Your task to perform on an android device: toggle data saver in the chrome app Image 0: 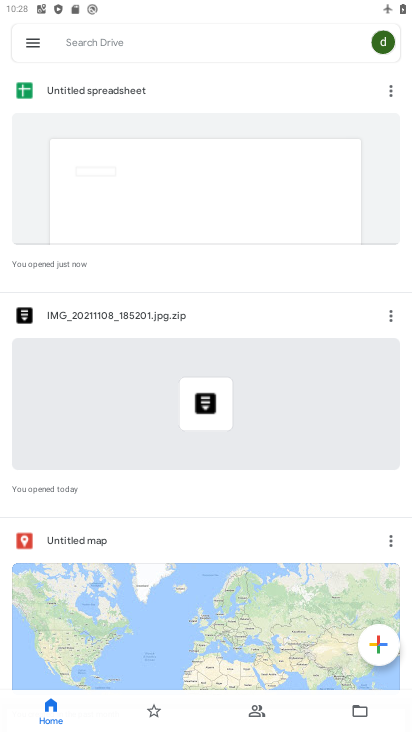
Step 0: press home button
Your task to perform on an android device: toggle data saver in the chrome app Image 1: 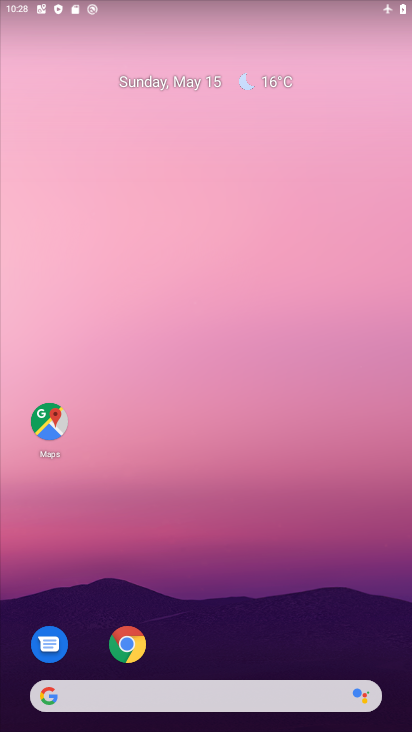
Step 1: click (125, 655)
Your task to perform on an android device: toggle data saver in the chrome app Image 2: 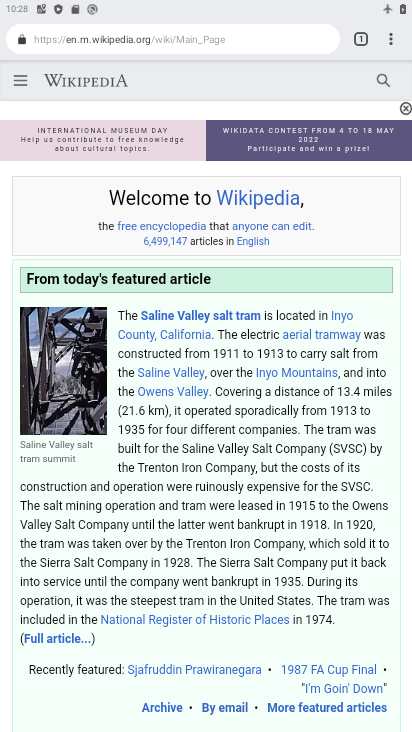
Step 2: click (397, 41)
Your task to perform on an android device: toggle data saver in the chrome app Image 3: 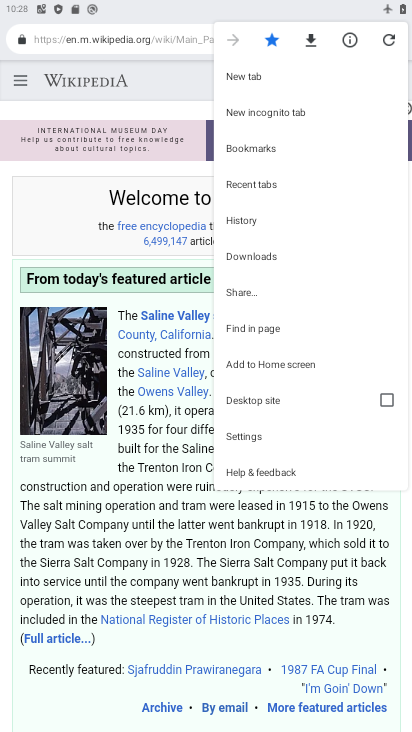
Step 3: click (293, 434)
Your task to perform on an android device: toggle data saver in the chrome app Image 4: 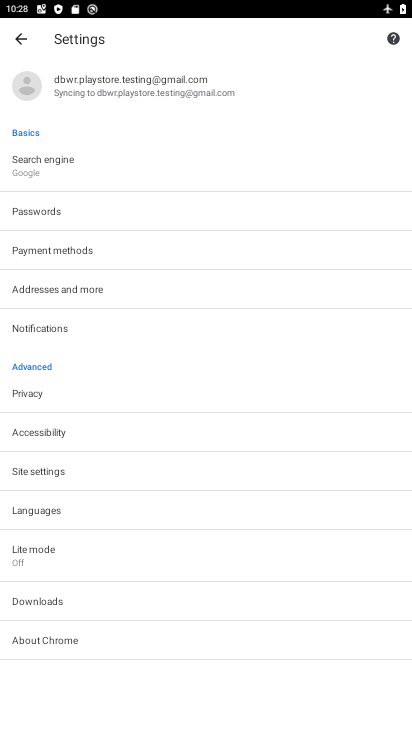
Step 4: click (44, 560)
Your task to perform on an android device: toggle data saver in the chrome app Image 5: 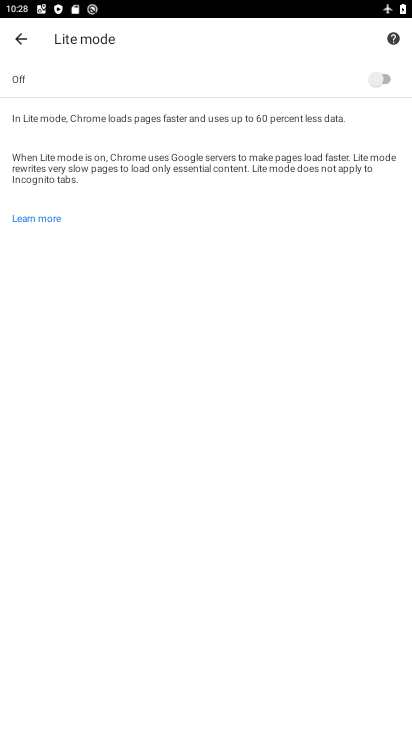
Step 5: click (372, 88)
Your task to perform on an android device: toggle data saver in the chrome app Image 6: 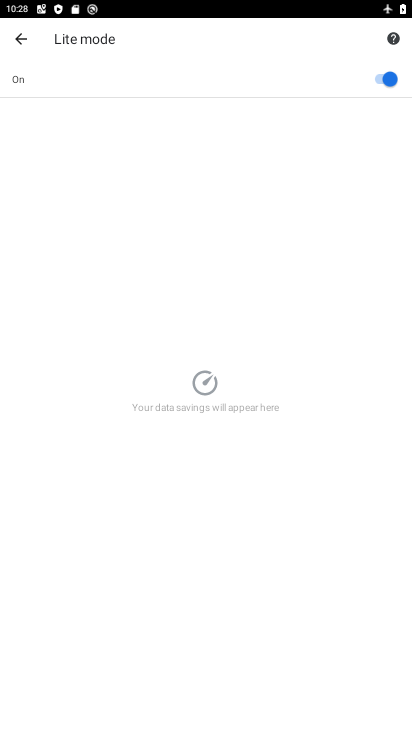
Step 6: task complete